Your task to perform on an android device: Turn on the flashlight Image 0: 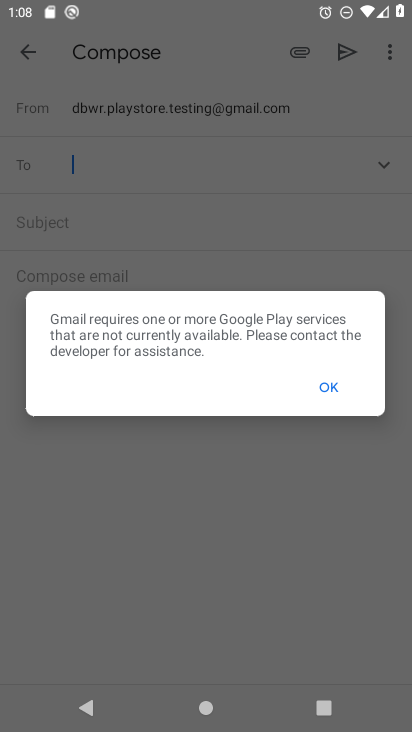
Step 0: press home button
Your task to perform on an android device: Turn on the flashlight Image 1: 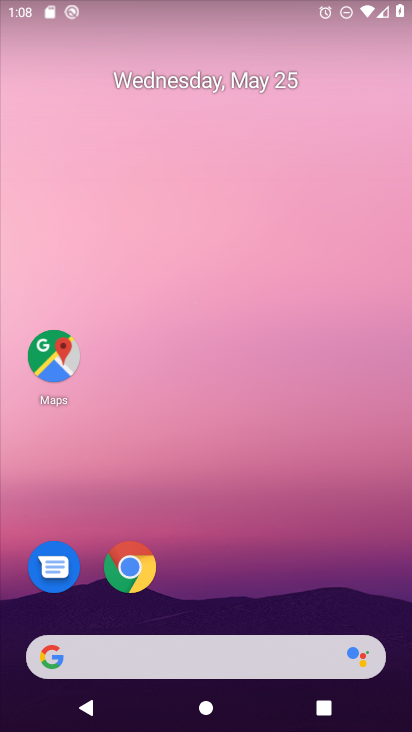
Step 1: drag from (396, 692) to (376, 80)
Your task to perform on an android device: Turn on the flashlight Image 2: 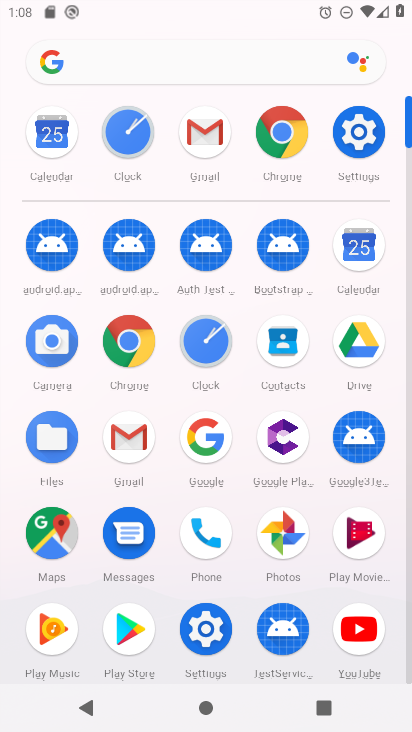
Step 2: click (351, 135)
Your task to perform on an android device: Turn on the flashlight Image 3: 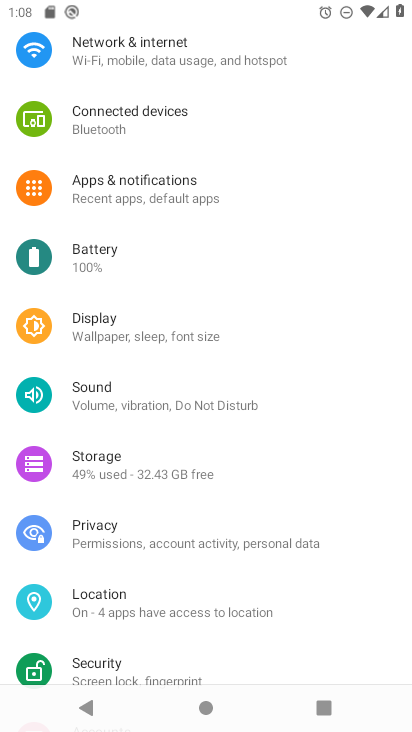
Step 3: click (84, 328)
Your task to perform on an android device: Turn on the flashlight Image 4: 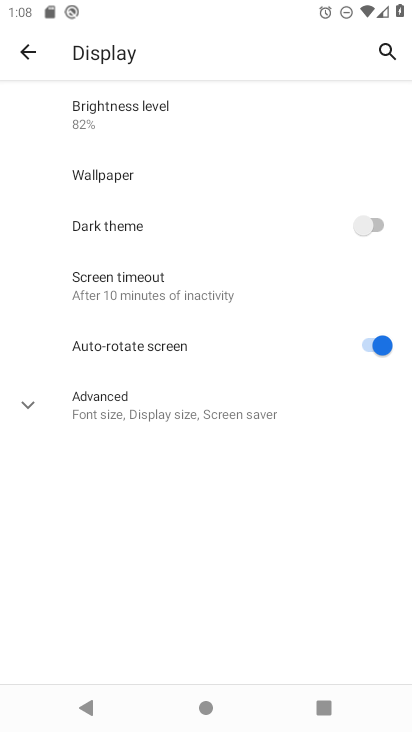
Step 4: task complete